Your task to perform on an android device: turn off priority inbox in the gmail app Image 0: 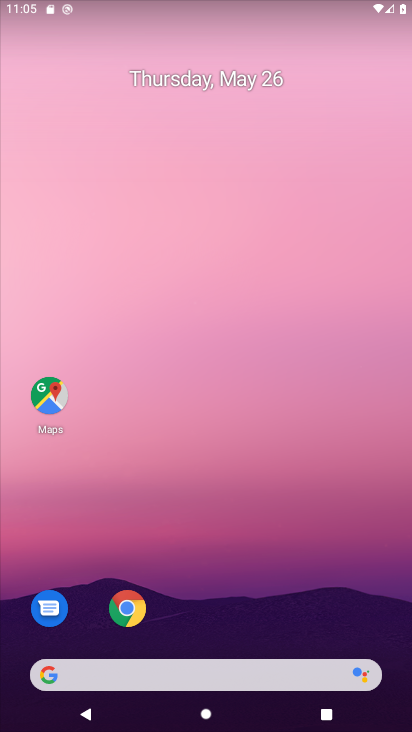
Step 0: drag from (396, 706) to (343, 253)
Your task to perform on an android device: turn off priority inbox in the gmail app Image 1: 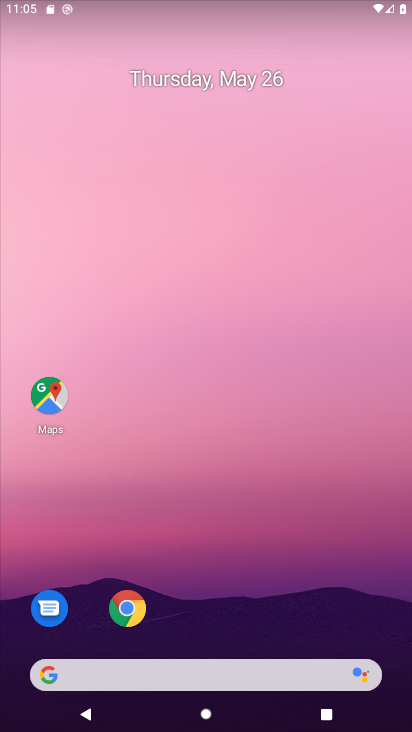
Step 1: drag from (404, 708) to (369, 111)
Your task to perform on an android device: turn off priority inbox in the gmail app Image 2: 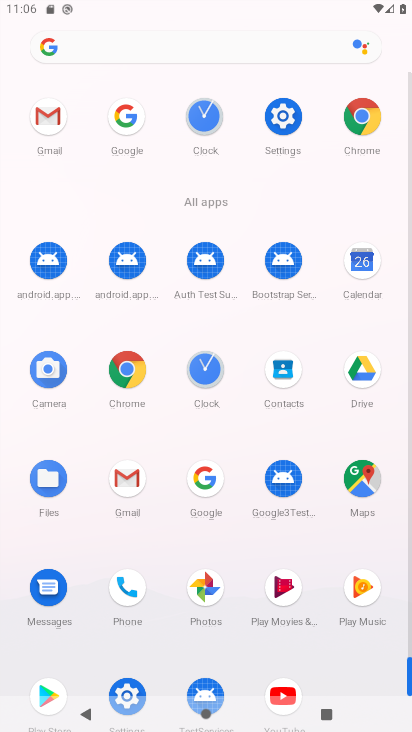
Step 2: click (117, 480)
Your task to perform on an android device: turn off priority inbox in the gmail app Image 3: 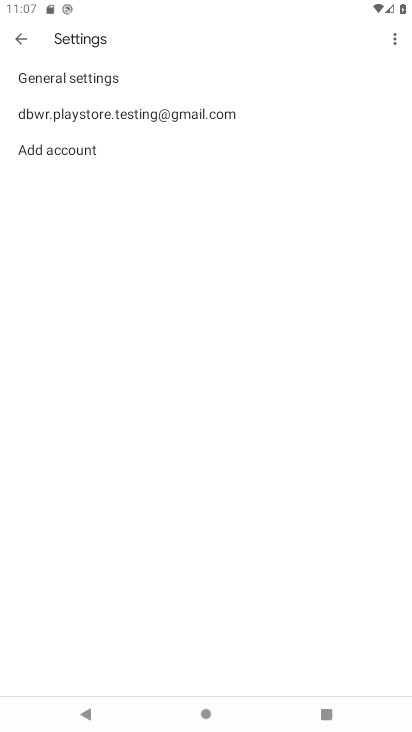
Step 3: click (56, 113)
Your task to perform on an android device: turn off priority inbox in the gmail app Image 4: 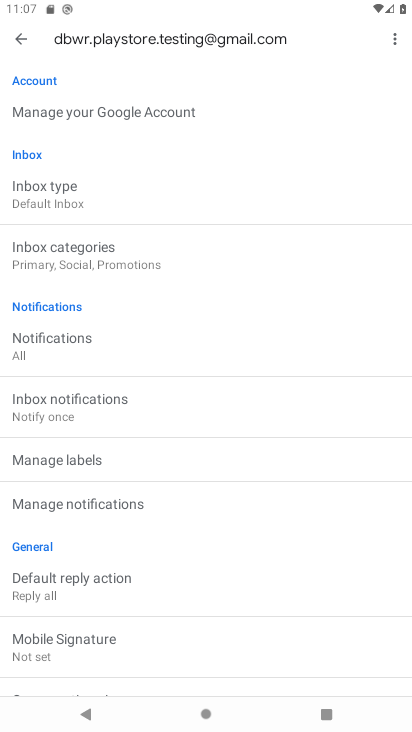
Step 4: click (42, 194)
Your task to perform on an android device: turn off priority inbox in the gmail app Image 5: 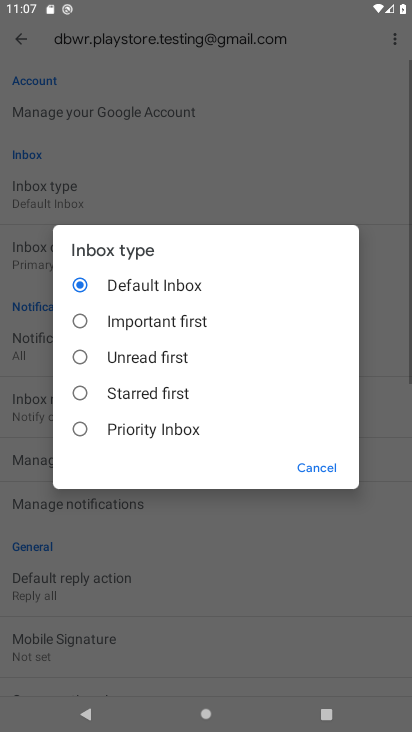
Step 5: task complete